Your task to perform on an android device: open a new tab in the chrome app Image 0: 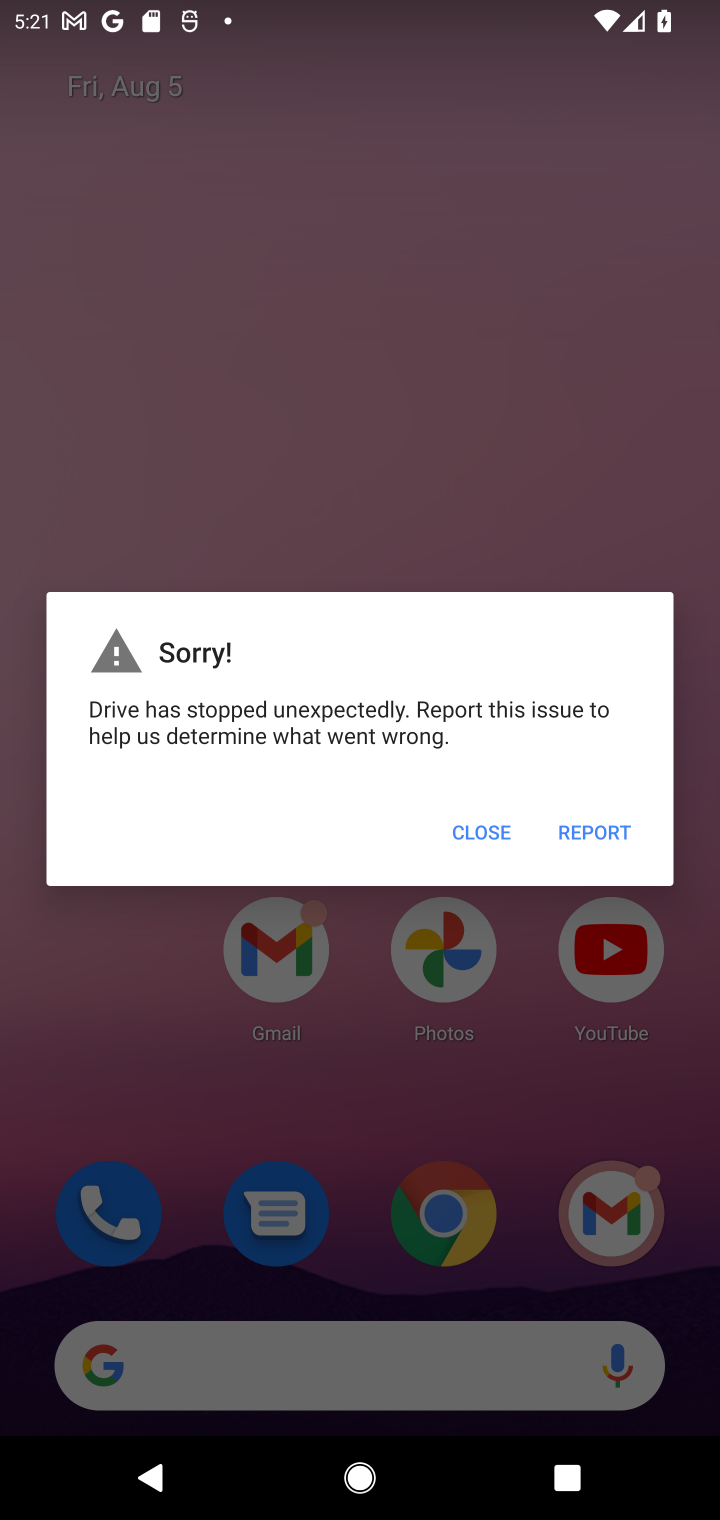
Step 0: click (433, 852)
Your task to perform on an android device: open a new tab in the chrome app Image 1: 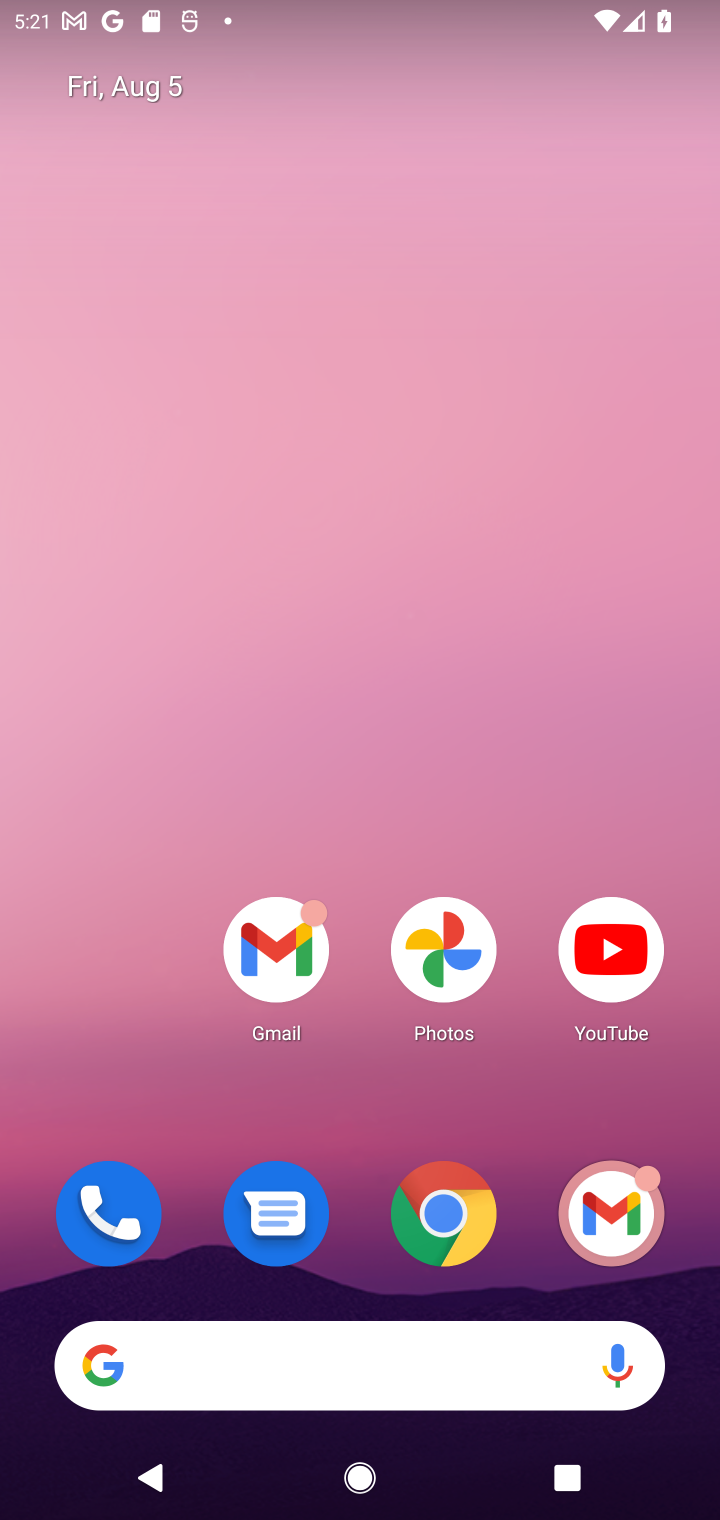
Step 1: click (443, 1184)
Your task to perform on an android device: open a new tab in the chrome app Image 2: 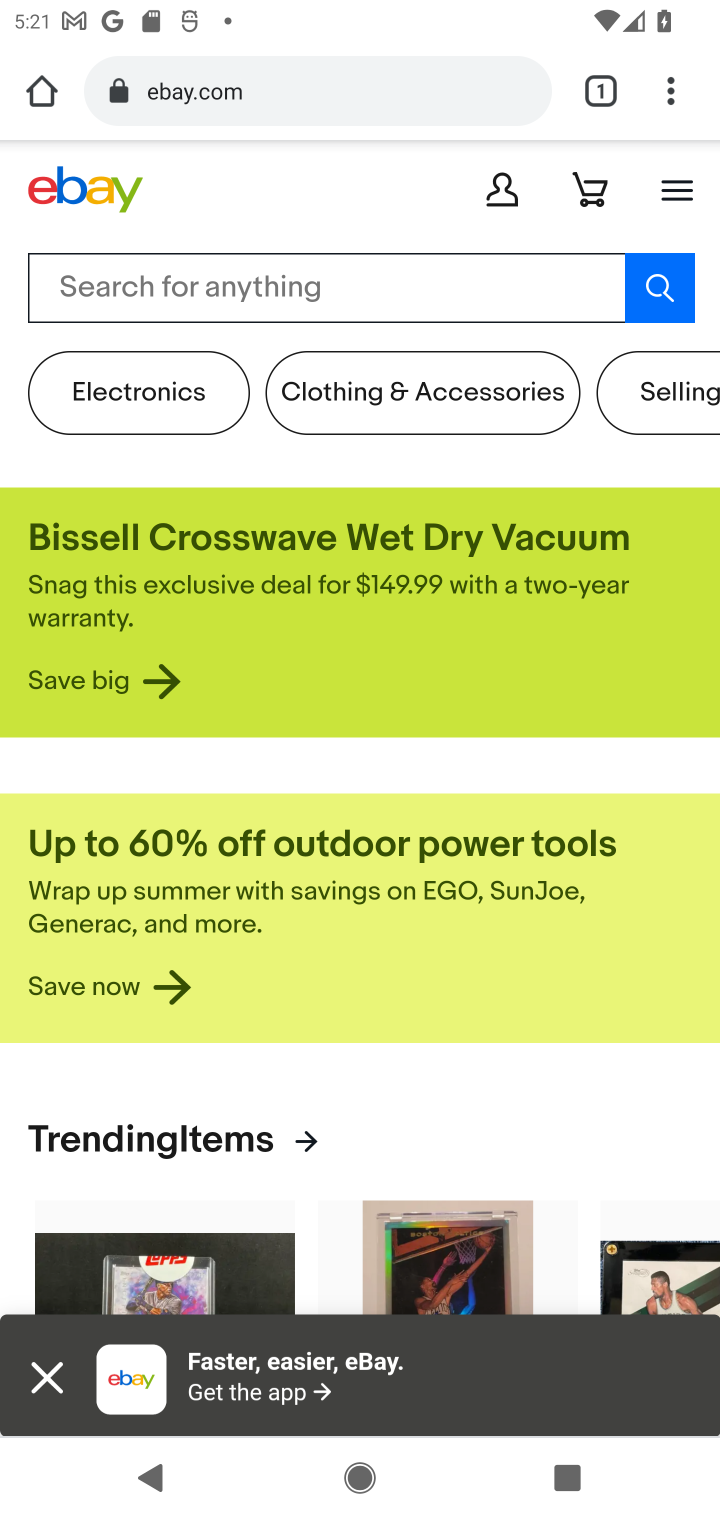
Step 2: click (675, 111)
Your task to perform on an android device: open a new tab in the chrome app Image 3: 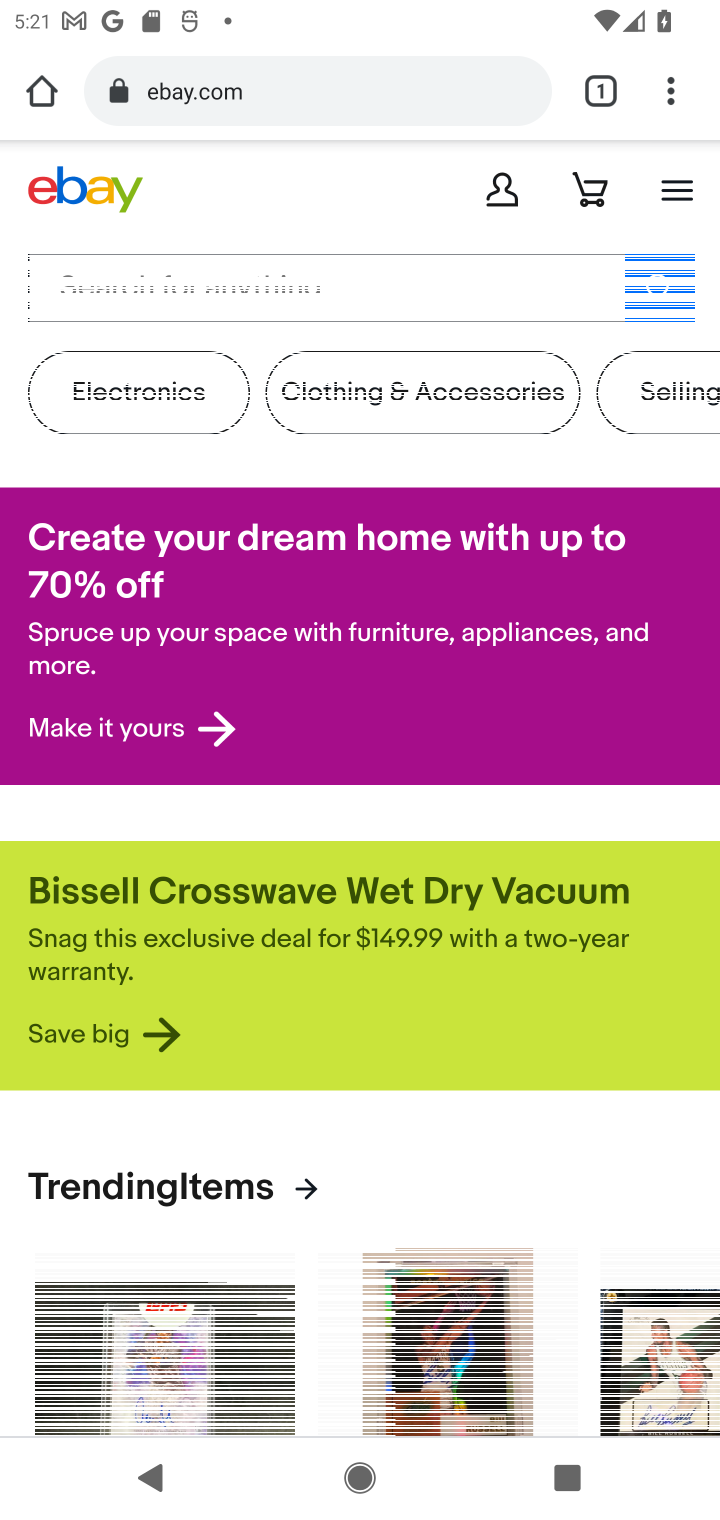
Step 3: click (682, 92)
Your task to perform on an android device: open a new tab in the chrome app Image 4: 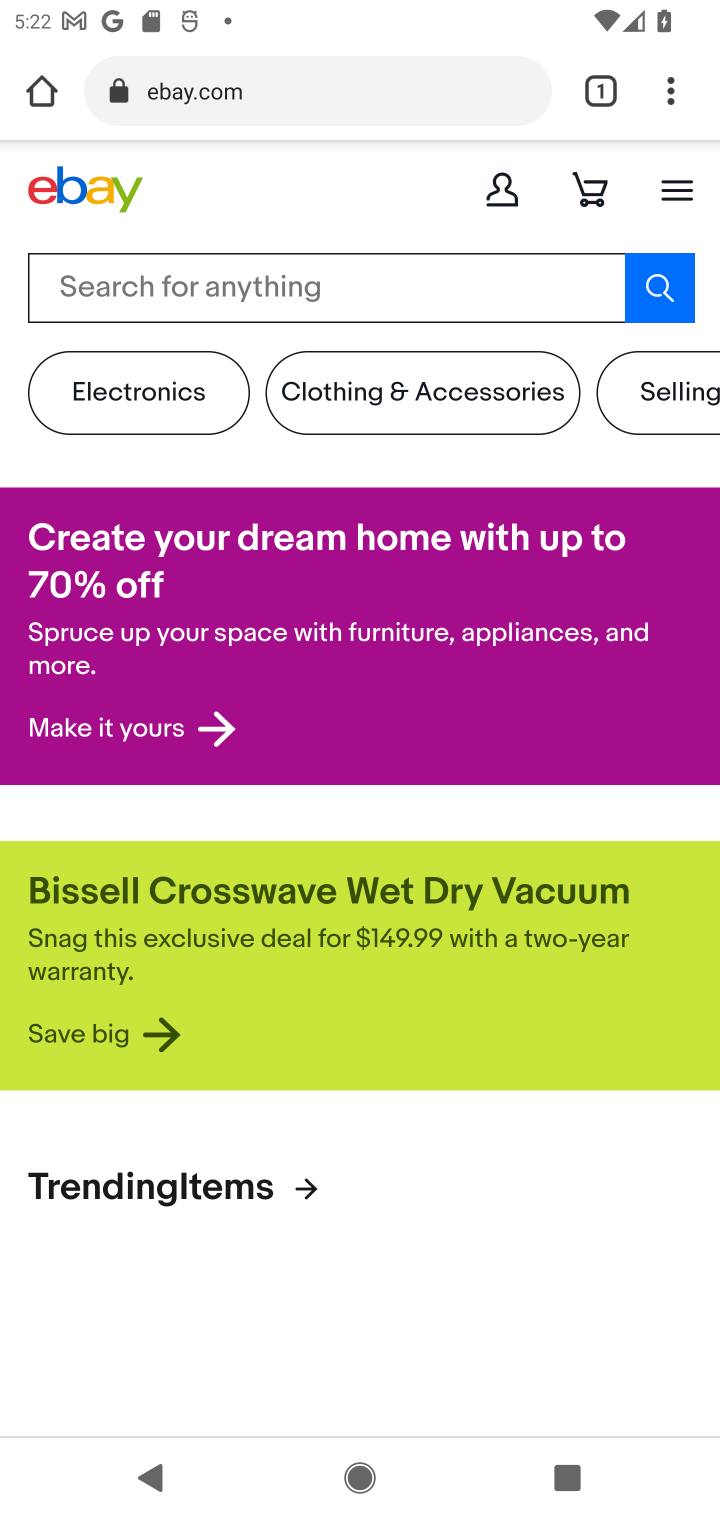
Step 4: task complete